Your task to perform on an android device: Open Wikipedia Image 0: 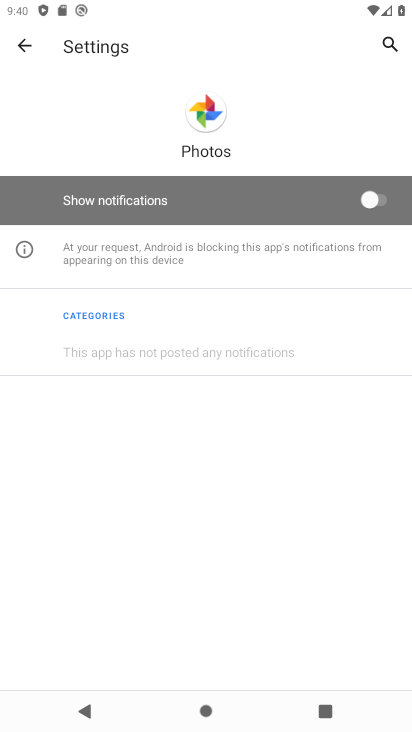
Step 0: press home button
Your task to perform on an android device: Open Wikipedia Image 1: 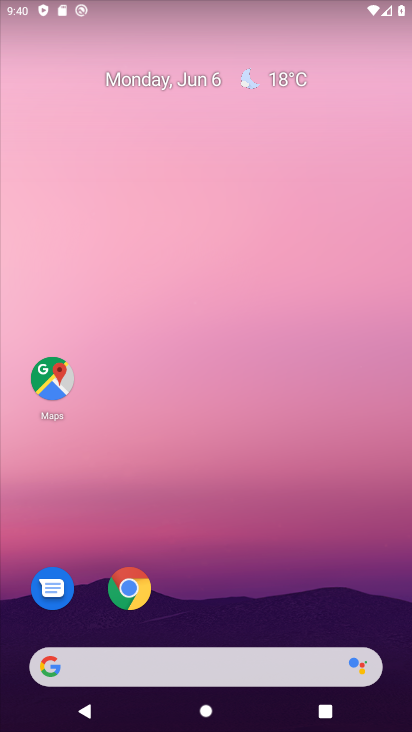
Step 1: click (128, 588)
Your task to perform on an android device: Open Wikipedia Image 2: 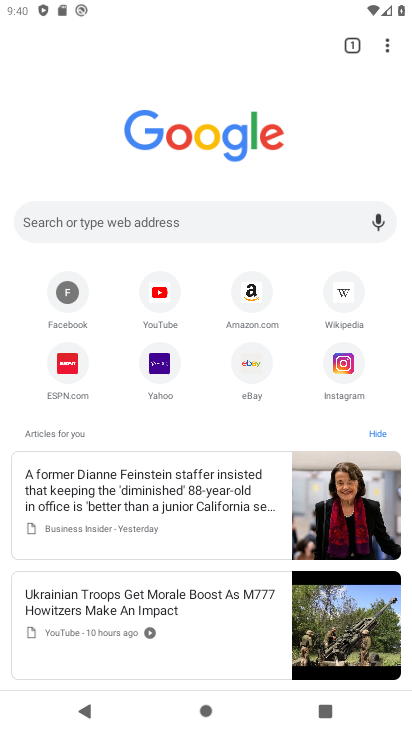
Step 2: click (339, 280)
Your task to perform on an android device: Open Wikipedia Image 3: 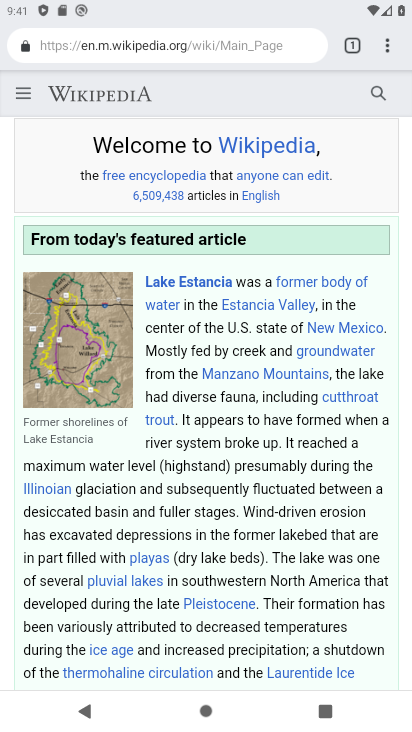
Step 3: click (187, 541)
Your task to perform on an android device: Open Wikipedia Image 4: 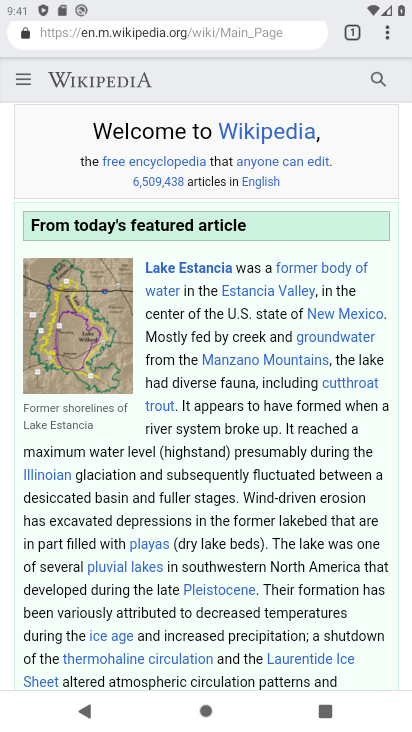
Step 4: drag from (197, 366) to (202, 332)
Your task to perform on an android device: Open Wikipedia Image 5: 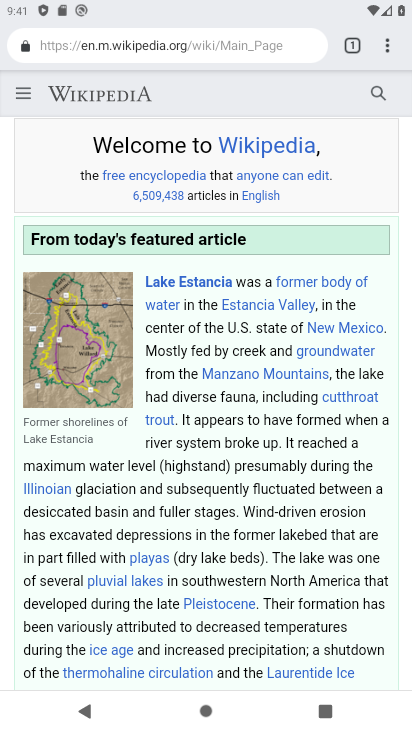
Step 5: click (212, 240)
Your task to perform on an android device: Open Wikipedia Image 6: 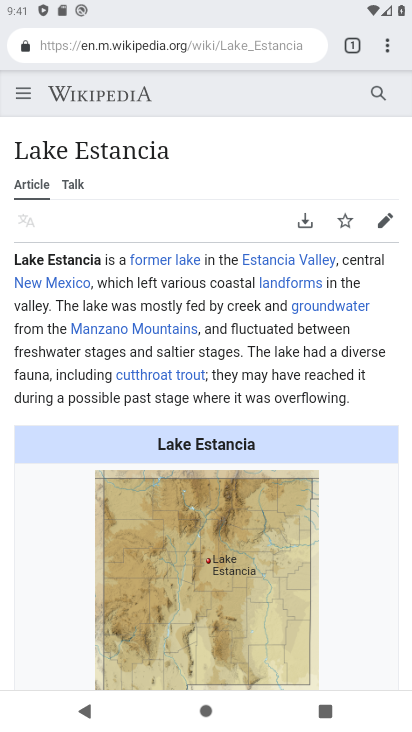
Step 6: task complete